Your task to perform on an android device: Open Google Chrome Image 0: 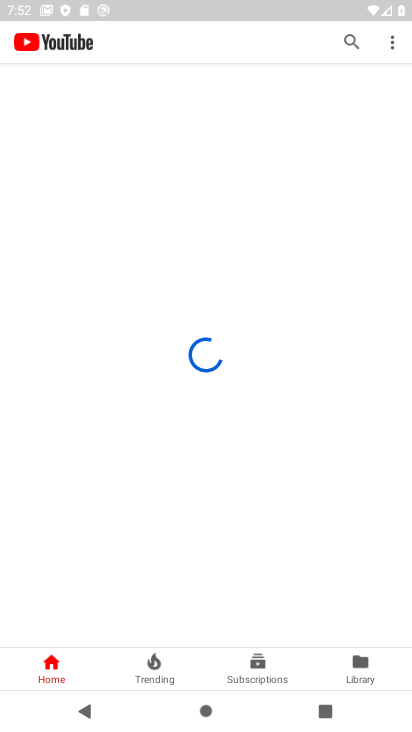
Step 0: click (125, 41)
Your task to perform on an android device: Open Google Chrome Image 1: 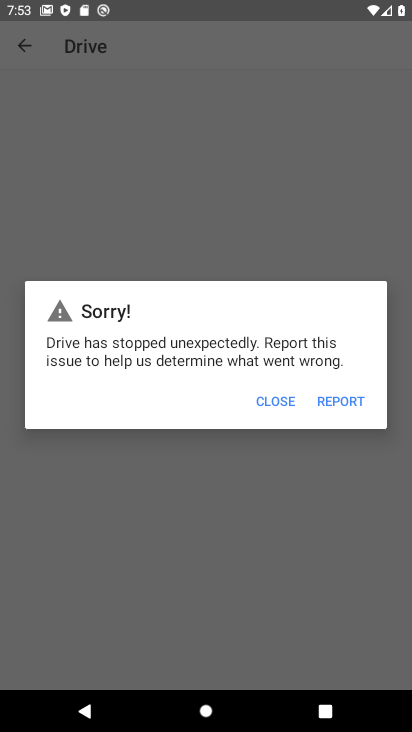
Step 1: click (272, 408)
Your task to perform on an android device: Open Google Chrome Image 2: 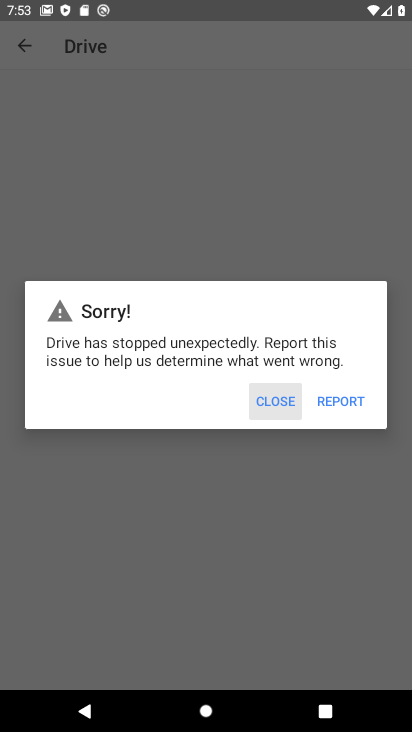
Step 2: click (268, 407)
Your task to perform on an android device: Open Google Chrome Image 3: 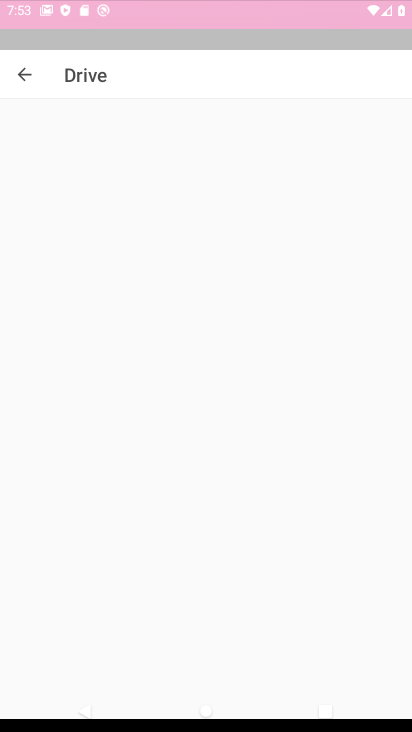
Step 3: click (268, 407)
Your task to perform on an android device: Open Google Chrome Image 4: 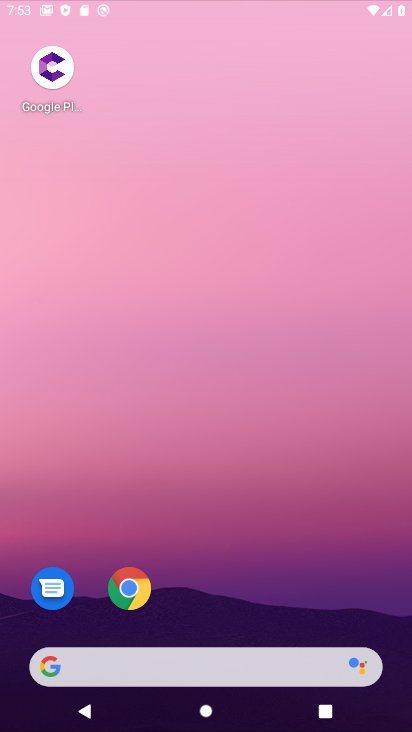
Step 4: click (270, 407)
Your task to perform on an android device: Open Google Chrome Image 5: 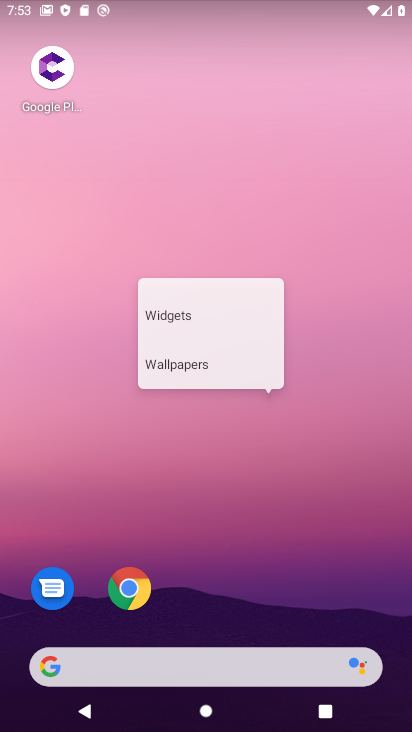
Step 5: click (270, 407)
Your task to perform on an android device: Open Google Chrome Image 6: 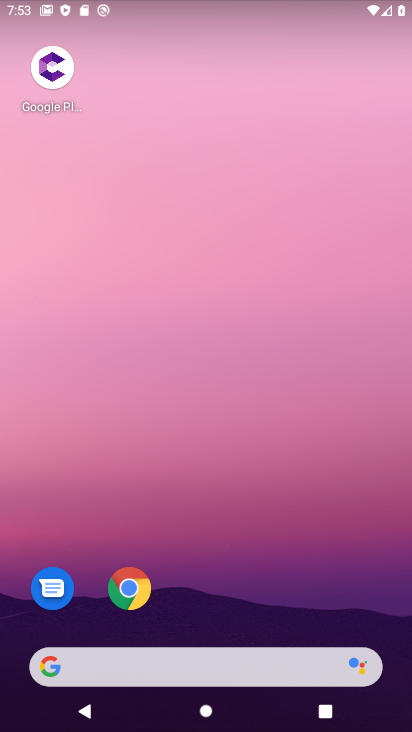
Step 6: drag from (241, 522) to (270, 52)
Your task to perform on an android device: Open Google Chrome Image 7: 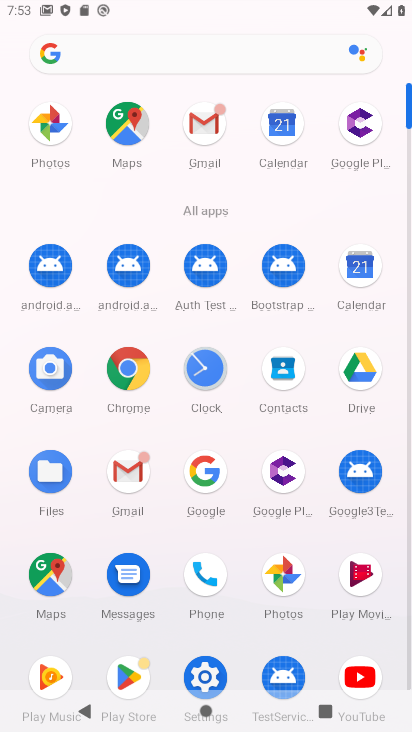
Step 7: drag from (200, 654) to (192, 128)
Your task to perform on an android device: Open Google Chrome Image 8: 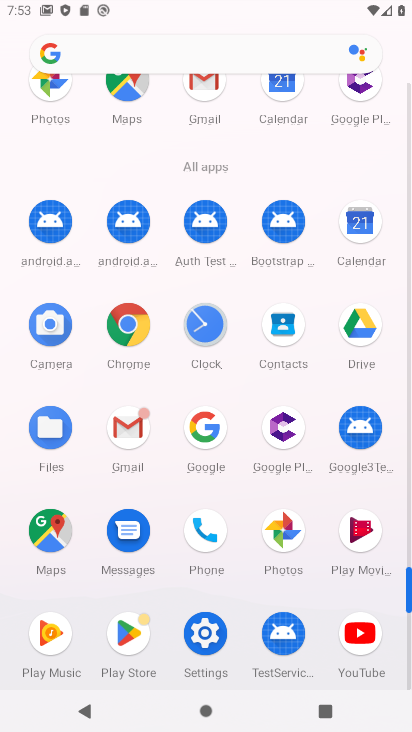
Step 8: drag from (190, 164) to (185, 45)
Your task to perform on an android device: Open Google Chrome Image 9: 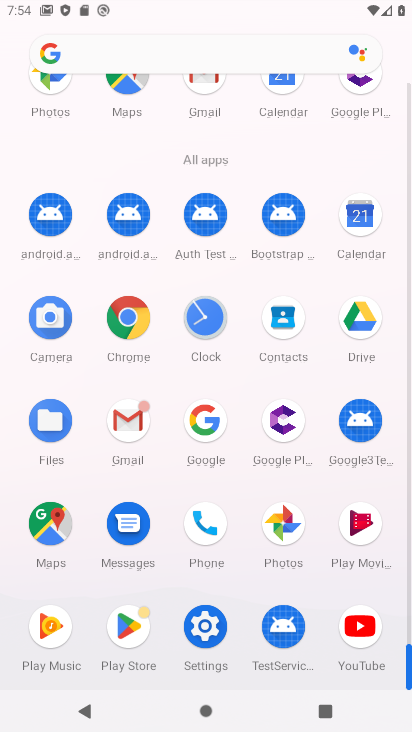
Step 9: click (121, 315)
Your task to perform on an android device: Open Google Chrome Image 10: 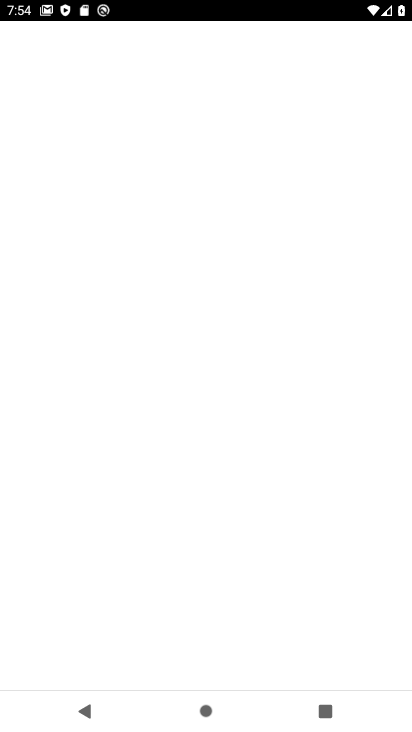
Step 10: click (127, 323)
Your task to perform on an android device: Open Google Chrome Image 11: 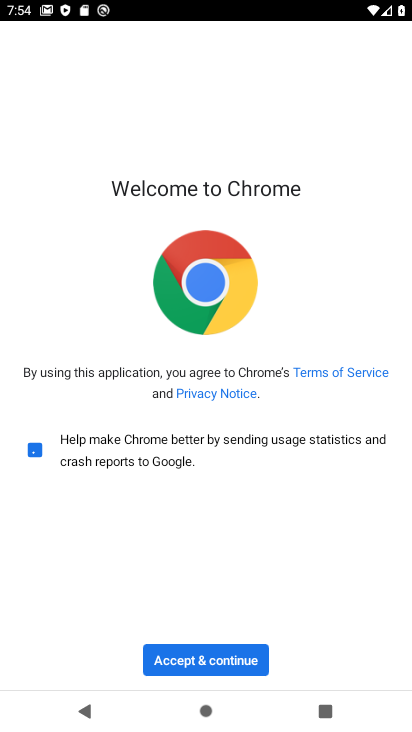
Step 11: click (130, 314)
Your task to perform on an android device: Open Google Chrome Image 12: 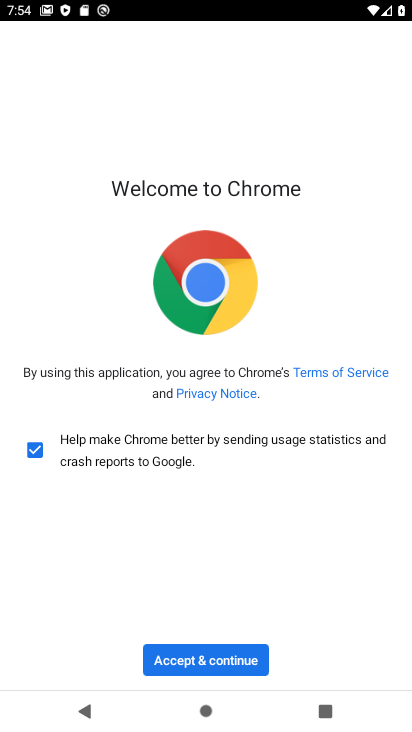
Step 12: click (236, 652)
Your task to perform on an android device: Open Google Chrome Image 13: 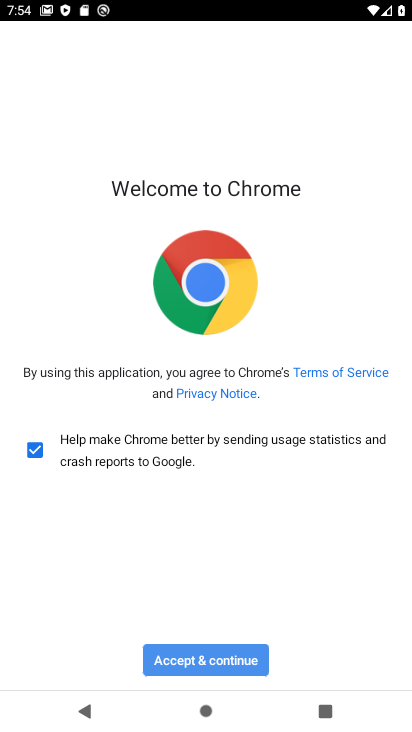
Step 13: click (236, 652)
Your task to perform on an android device: Open Google Chrome Image 14: 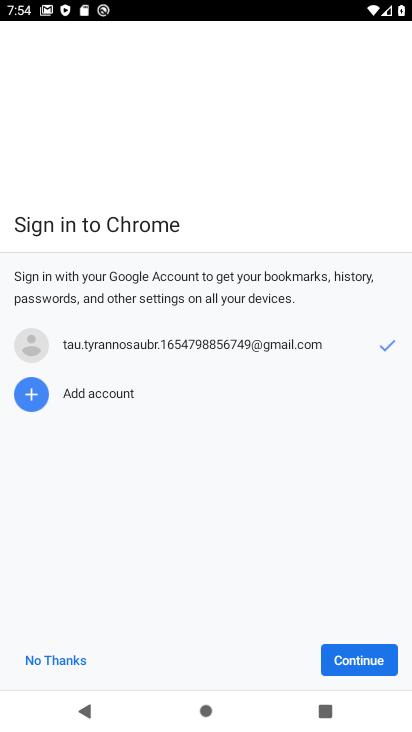
Step 14: click (21, 645)
Your task to perform on an android device: Open Google Chrome Image 15: 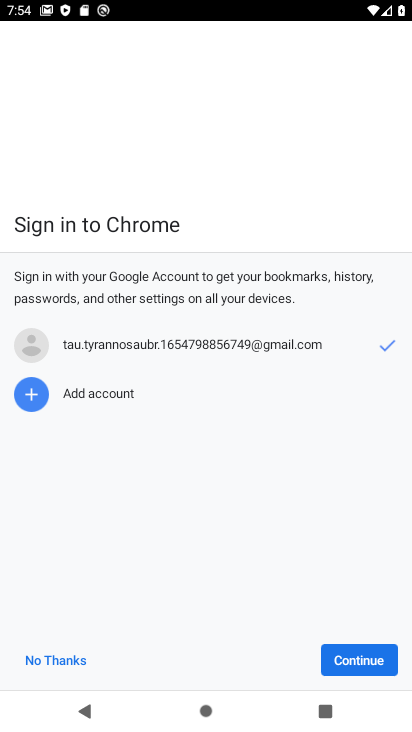
Step 15: click (26, 651)
Your task to perform on an android device: Open Google Chrome Image 16: 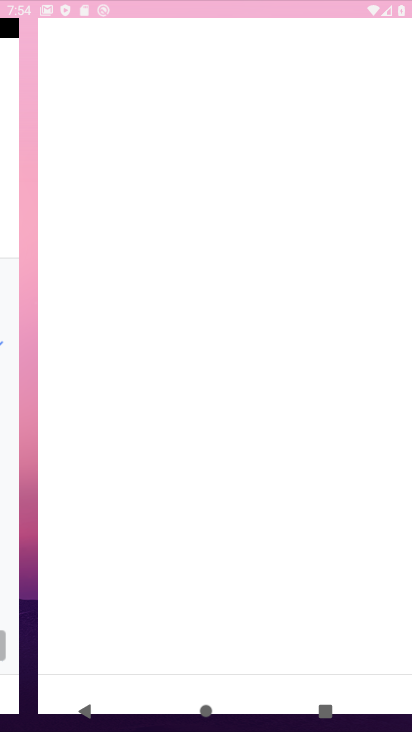
Step 16: click (35, 652)
Your task to perform on an android device: Open Google Chrome Image 17: 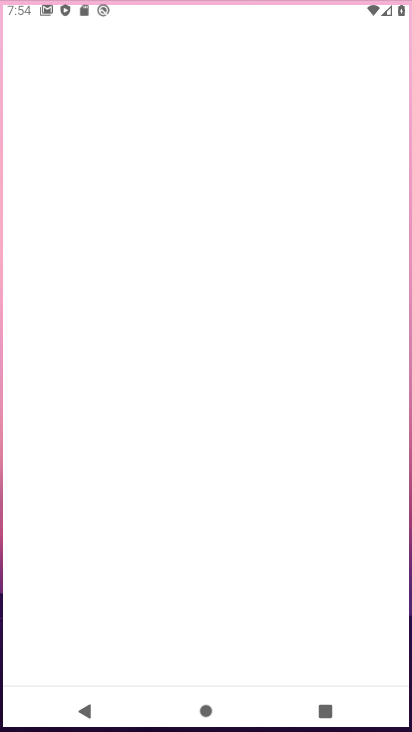
Step 17: click (42, 654)
Your task to perform on an android device: Open Google Chrome Image 18: 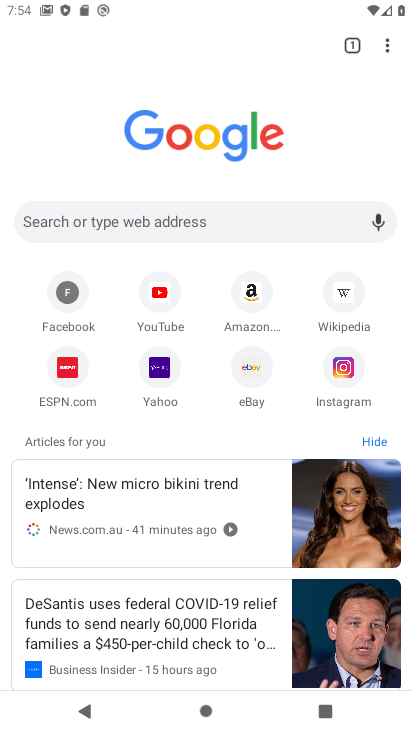
Step 18: task complete